Your task to perform on an android device: Open accessibility settings Image 0: 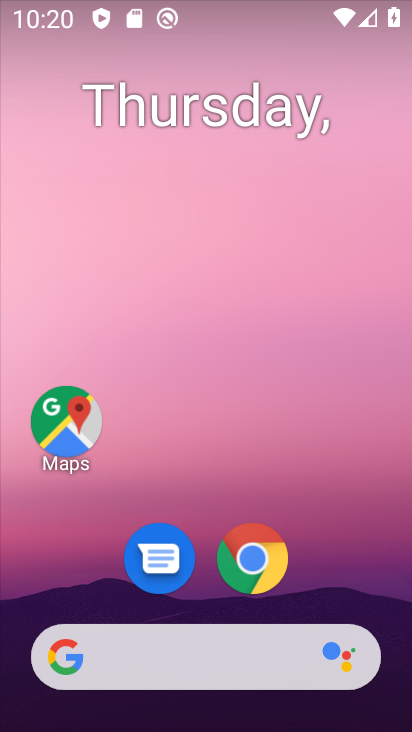
Step 0: drag from (302, 593) to (352, 115)
Your task to perform on an android device: Open accessibility settings Image 1: 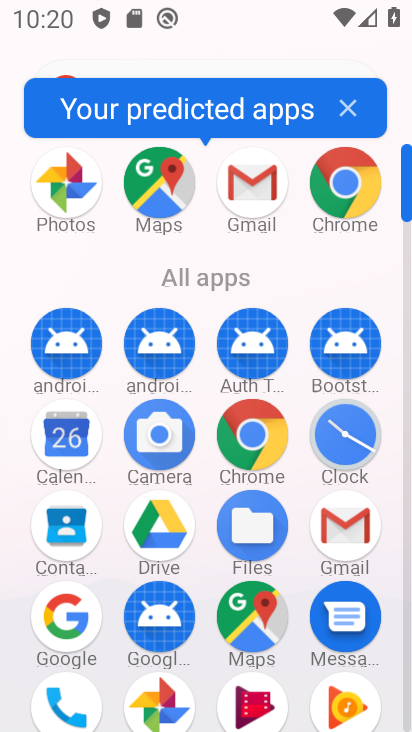
Step 1: drag from (296, 634) to (309, 152)
Your task to perform on an android device: Open accessibility settings Image 2: 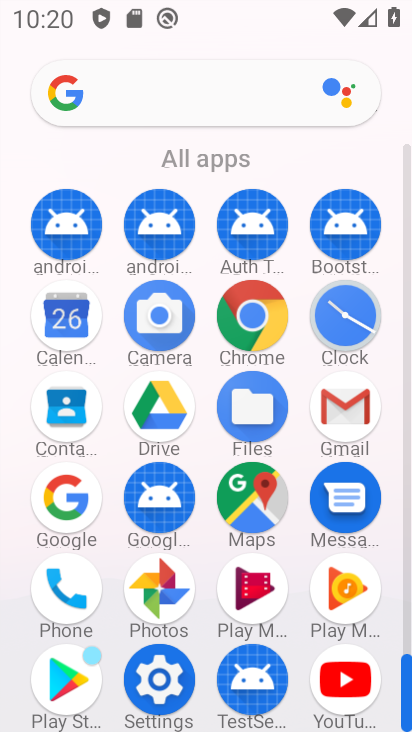
Step 2: click (155, 677)
Your task to perform on an android device: Open accessibility settings Image 3: 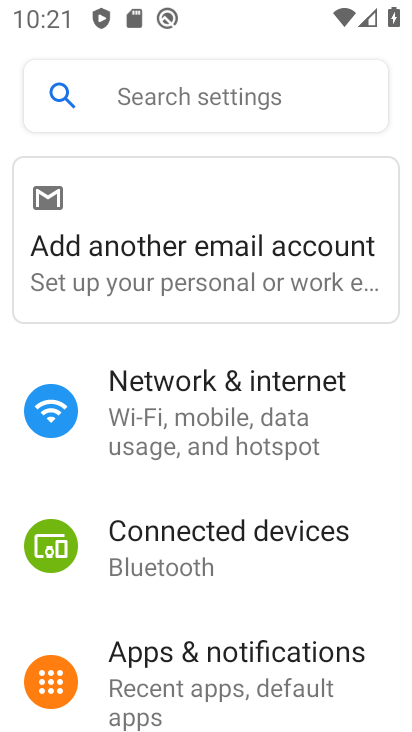
Step 3: drag from (216, 627) to (244, 80)
Your task to perform on an android device: Open accessibility settings Image 4: 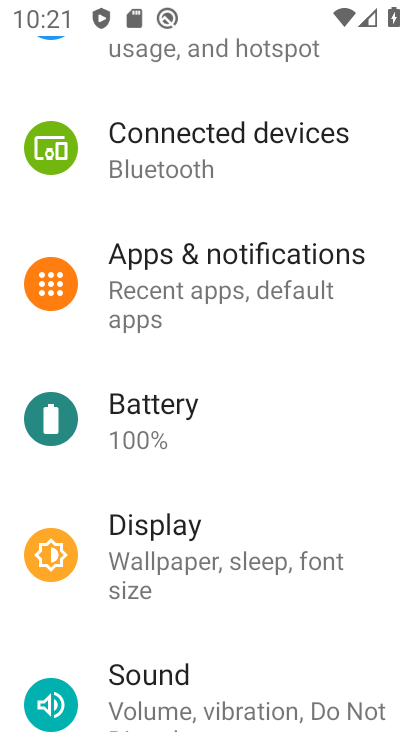
Step 4: drag from (189, 657) to (257, 113)
Your task to perform on an android device: Open accessibility settings Image 5: 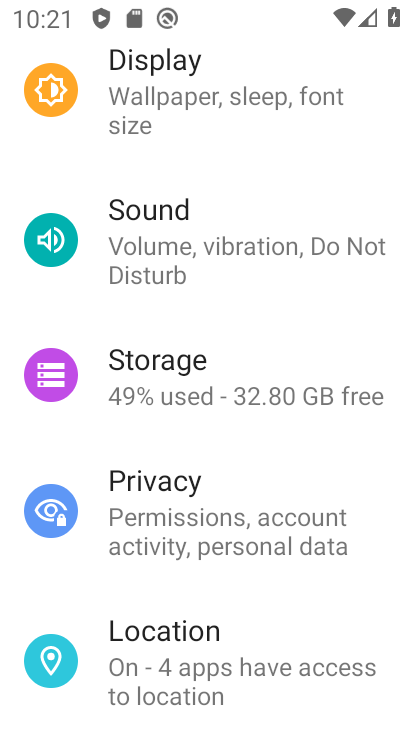
Step 5: drag from (274, 687) to (364, 167)
Your task to perform on an android device: Open accessibility settings Image 6: 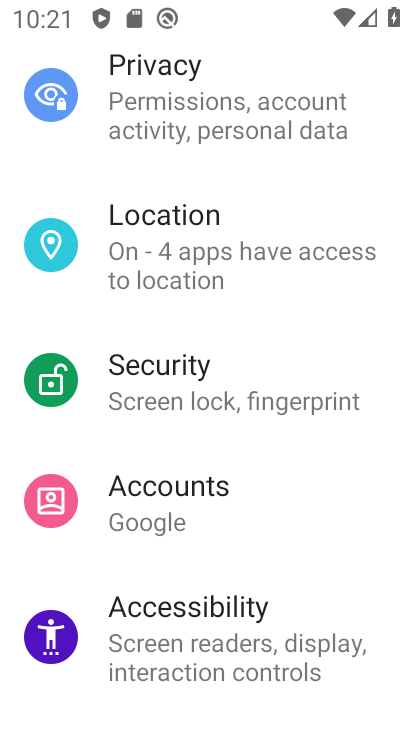
Step 6: click (188, 631)
Your task to perform on an android device: Open accessibility settings Image 7: 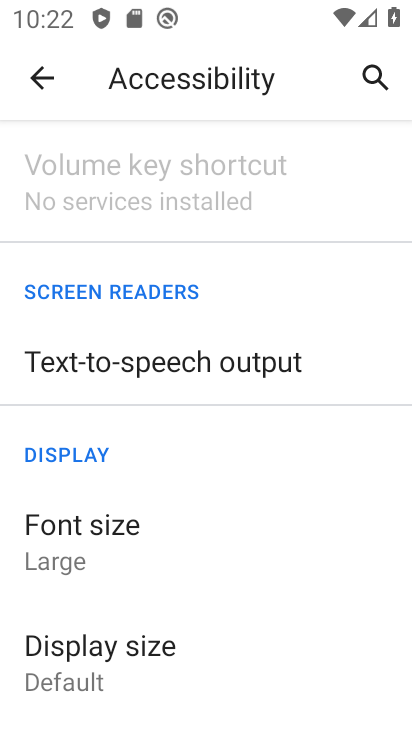
Step 7: task complete